Your task to perform on an android device: change the clock display to analog Image 0: 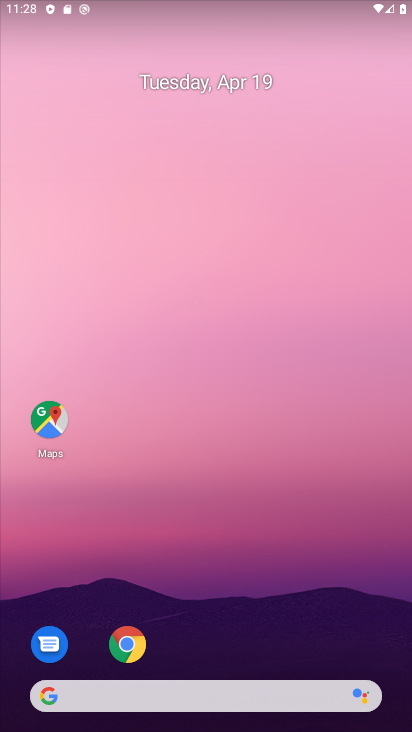
Step 0: drag from (204, 727) to (204, 234)
Your task to perform on an android device: change the clock display to analog Image 1: 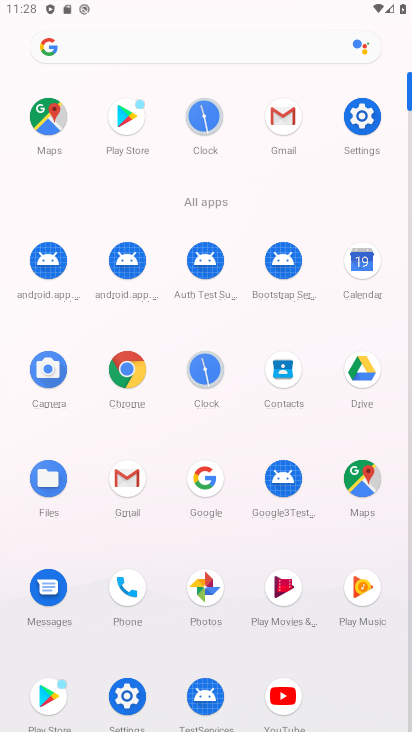
Step 1: click (201, 370)
Your task to perform on an android device: change the clock display to analog Image 2: 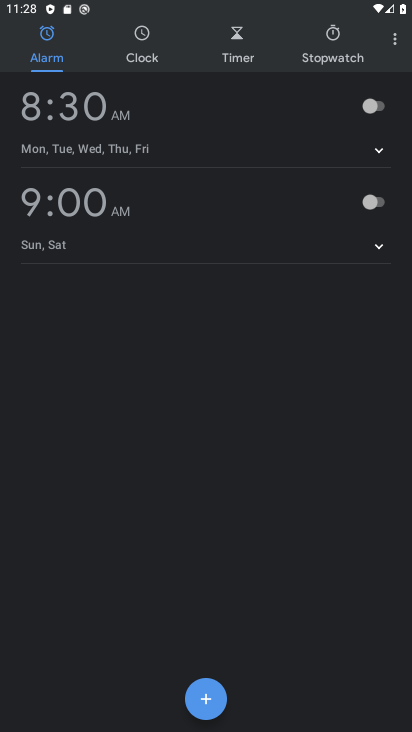
Step 2: click (396, 43)
Your task to perform on an android device: change the clock display to analog Image 3: 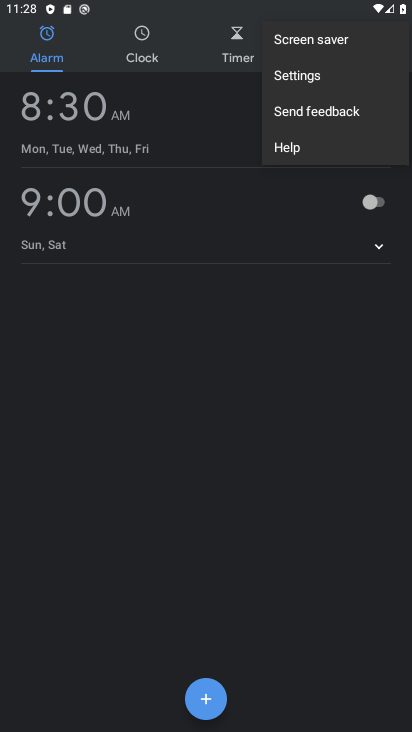
Step 3: click (294, 77)
Your task to perform on an android device: change the clock display to analog Image 4: 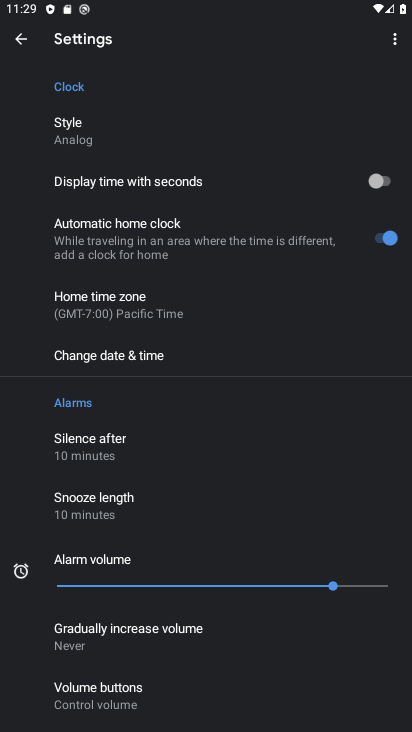
Step 4: task complete